Your task to perform on an android device: clear history in the chrome app Image 0: 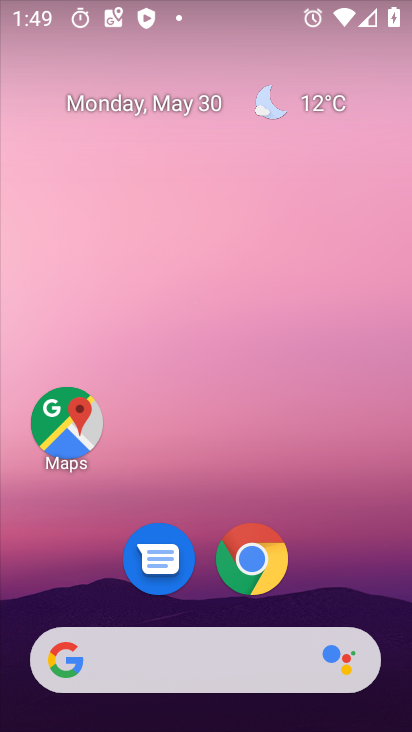
Step 0: click (251, 550)
Your task to perform on an android device: clear history in the chrome app Image 1: 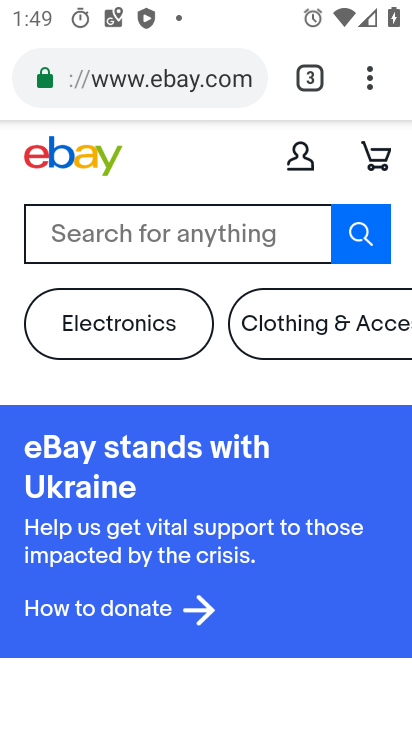
Step 1: drag from (370, 79) to (100, 436)
Your task to perform on an android device: clear history in the chrome app Image 2: 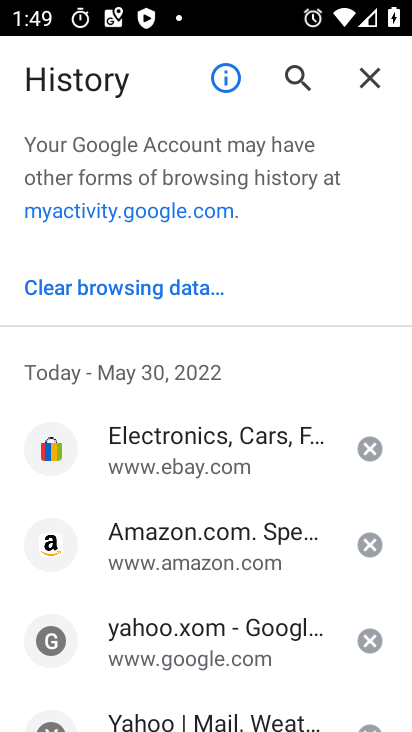
Step 2: click (141, 300)
Your task to perform on an android device: clear history in the chrome app Image 3: 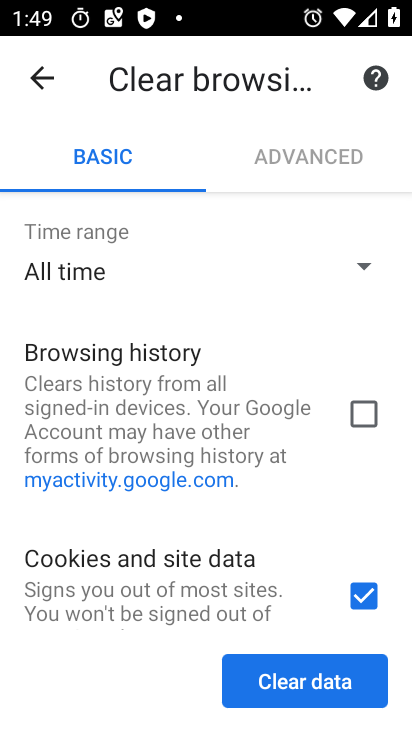
Step 3: click (381, 412)
Your task to perform on an android device: clear history in the chrome app Image 4: 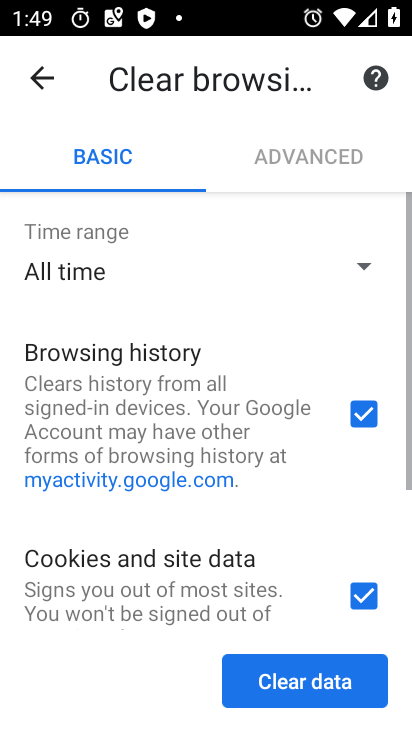
Step 4: drag from (244, 541) to (309, 129)
Your task to perform on an android device: clear history in the chrome app Image 5: 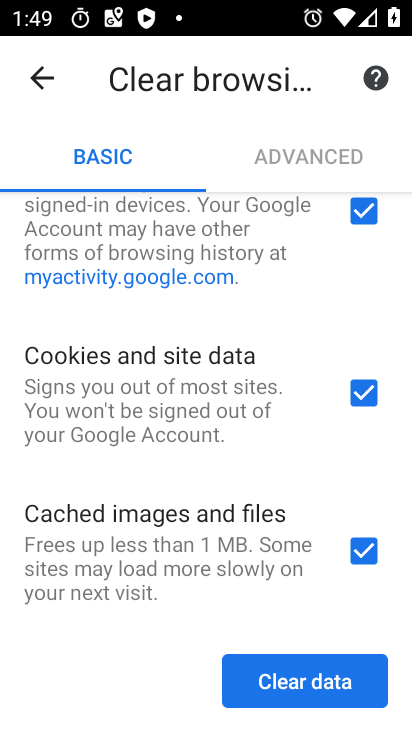
Step 5: click (250, 684)
Your task to perform on an android device: clear history in the chrome app Image 6: 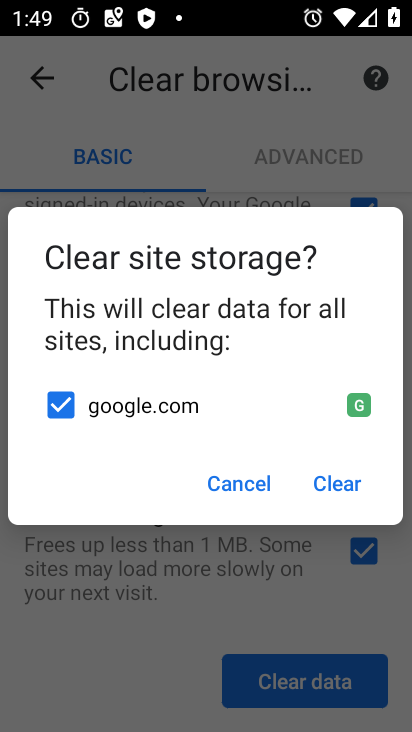
Step 6: click (339, 467)
Your task to perform on an android device: clear history in the chrome app Image 7: 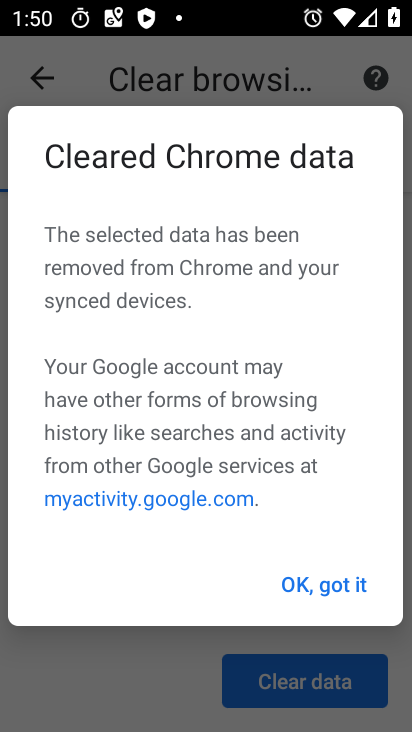
Step 7: click (337, 585)
Your task to perform on an android device: clear history in the chrome app Image 8: 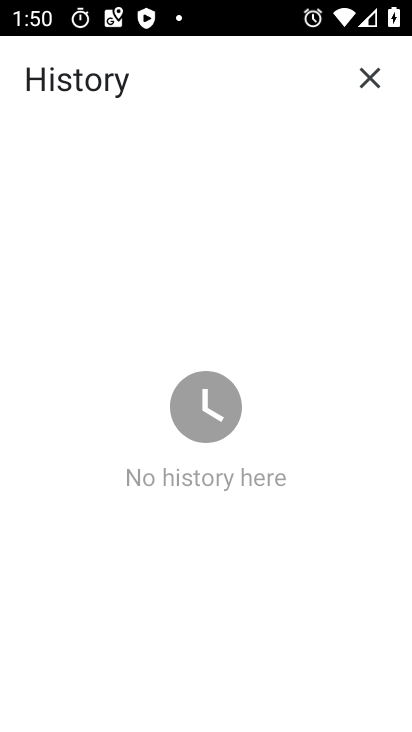
Step 8: task complete